Your task to perform on an android device: change notification settings in the gmail app Image 0: 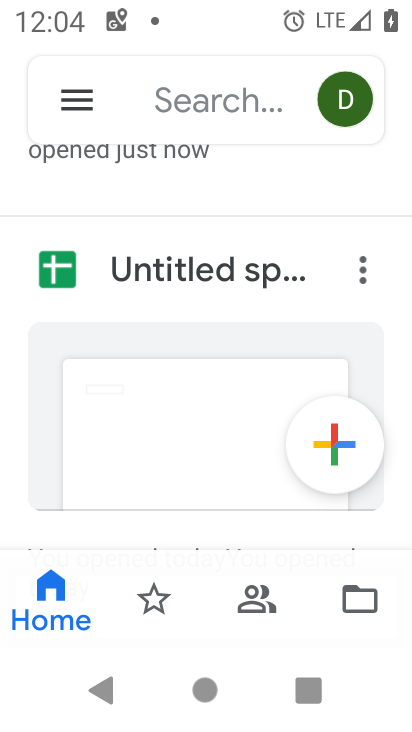
Step 0: press home button
Your task to perform on an android device: change notification settings in the gmail app Image 1: 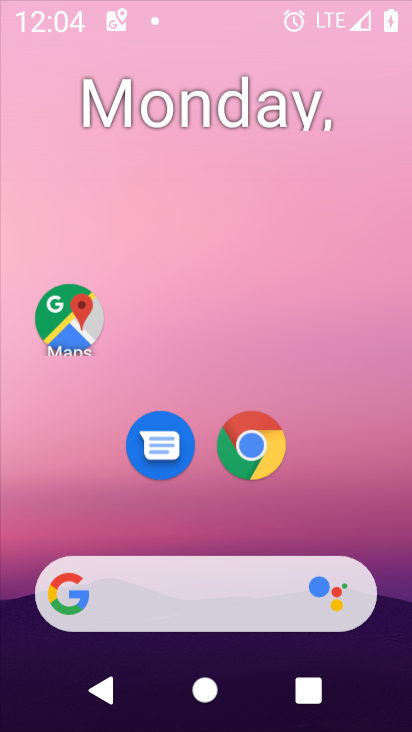
Step 1: drag from (218, 545) to (271, 39)
Your task to perform on an android device: change notification settings in the gmail app Image 2: 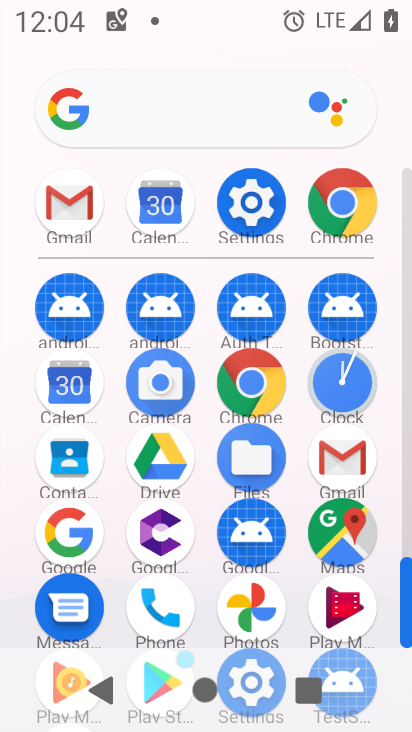
Step 2: click (346, 445)
Your task to perform on an android device: change notification settings in the gmail app Image 3: 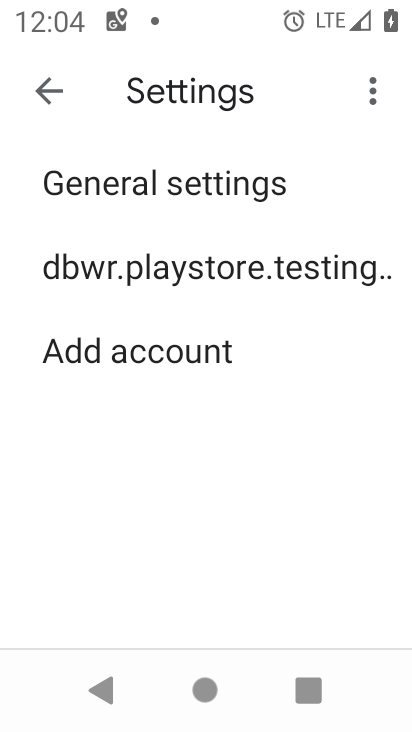
Step 3: click (141, 263)
Your task to perform on an android device: change notification settings in the gmail app Image 4: 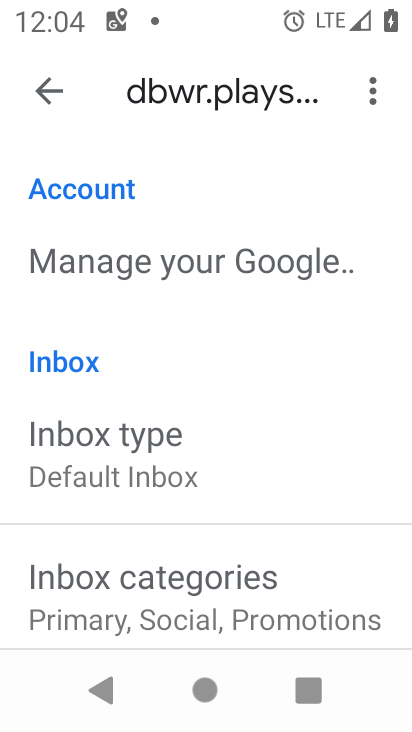
Step 4: drag from (220, 559) to (319, 58)
Your task to perform on an android device: change notification settings in the gmail app Image 5: 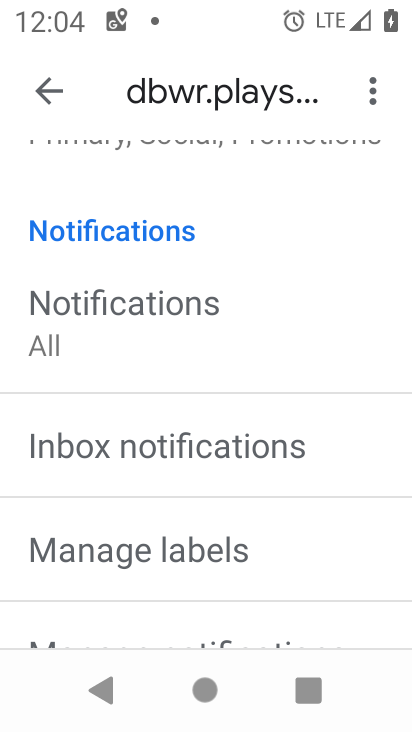
Step 5: drag from (192, 527) to (275, 146)
Your task to perform on an android device: change notification settings in the gmail app Image 6: 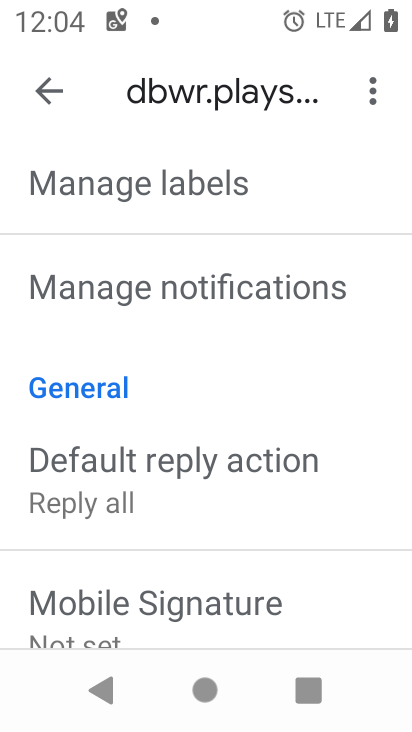
Step 6: drag from (209, 558) to (292, 638)
Your task to perform on an android device: change notification settings in the gmail app Image 7: 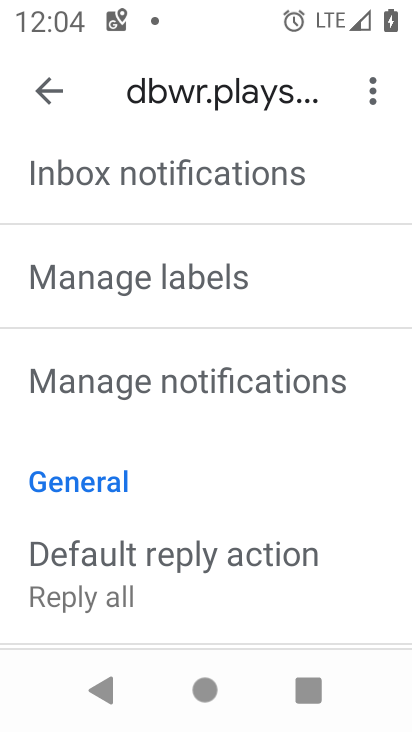
Step 7: click (149, 368)
Your task to perform on an android device: change notification settings in the gmail app Image 8: 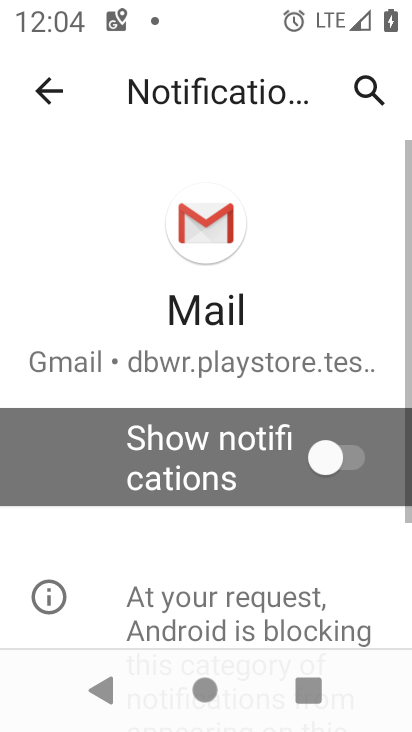
Step 8: drag from (325, 555) to (287, 0)
Your task to perform on an android device: change notification settings in the gmail app Image 9: 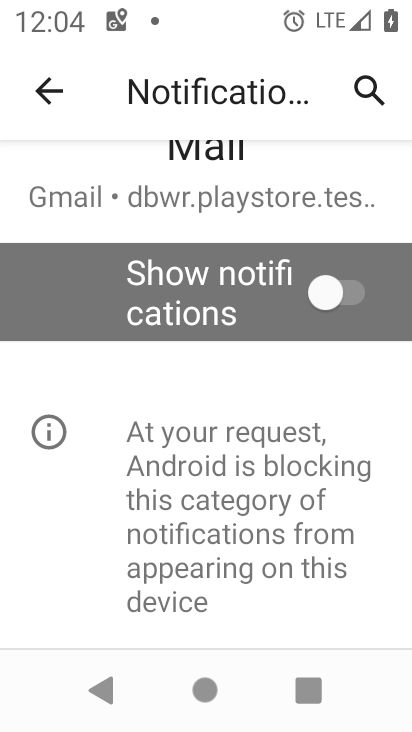
Step 9: drag from (277, 493) to (299, 271)
Your task to perform on an android device: change notification settings in the gmail app Image 10: 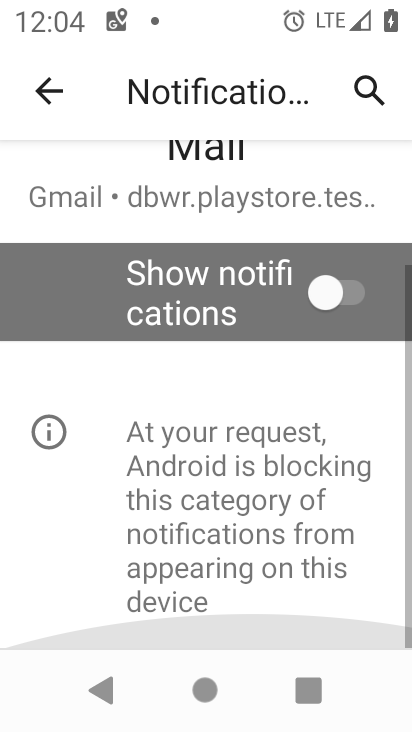
Step 10: drag from (298, 223) to (284, 671)
Your task to perform on an android device: change notification settings in the gmail app Image 11: 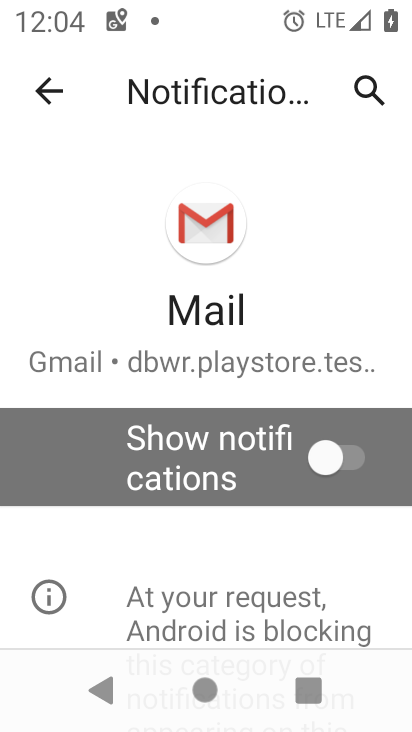
Step 11: drag from (208, 562) to (313, 296)
Your task to perform on an android device: change notification settings in the gmail app Image 12: 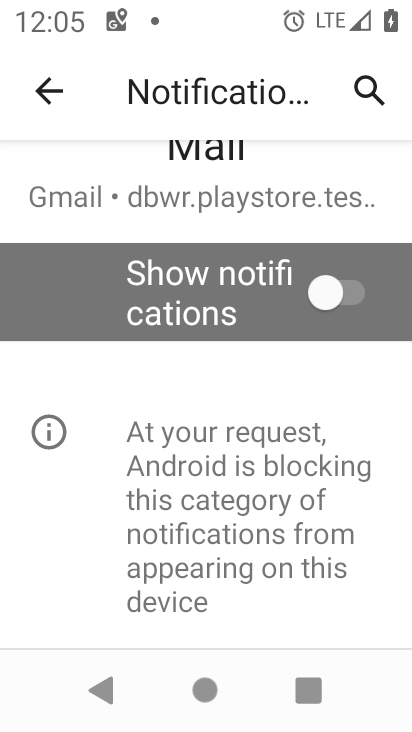
Step 12: click (320, 277)
Your task to perform on an android device: change notification settings in the gmail app Image 13: 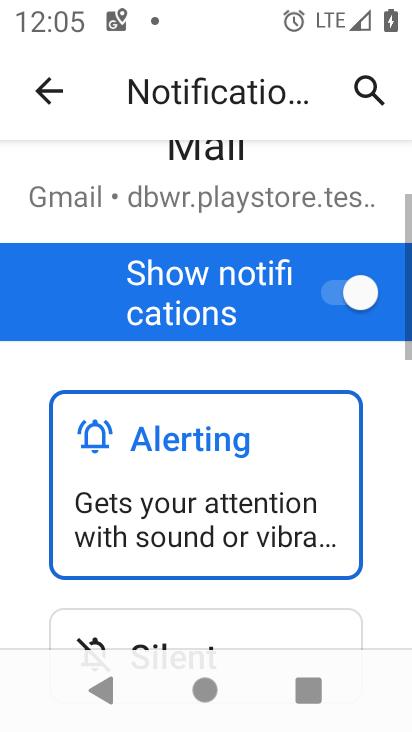
Step 13: task complete